Your task to perform on an android device: star an email in the gmail app Image 0: 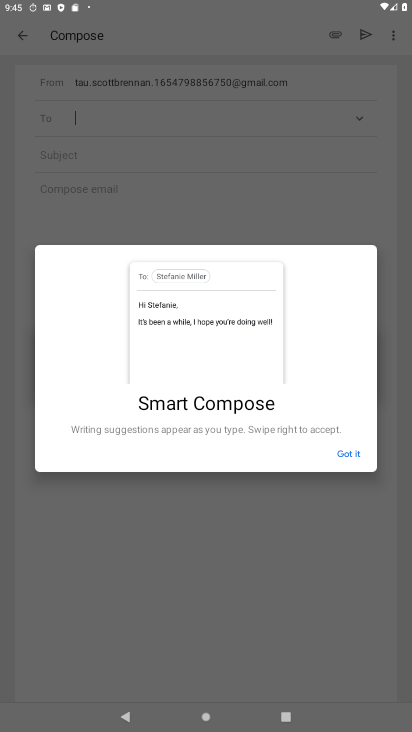
Step 0: click (348, 452)
Your task to perform on an android device: star an email in the gmail app Image 1: 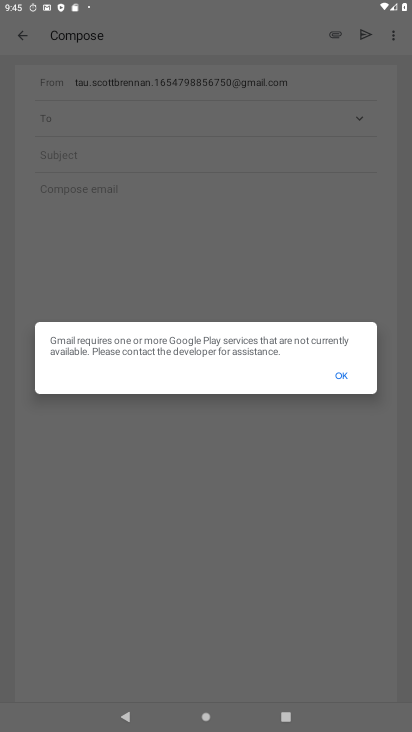
Step 1: click (343, 372)
Your task to perform on an android device: star an email in the gmail app Image 2: 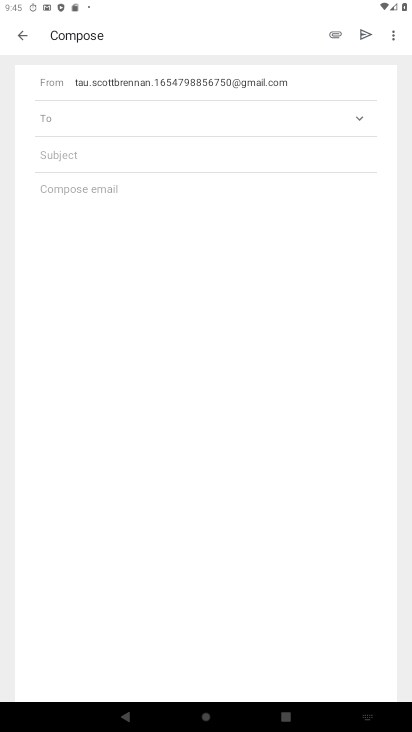
Step 2: click (17, 46)
Your task to perform on an android device: star an email in the gmail app Image 3: 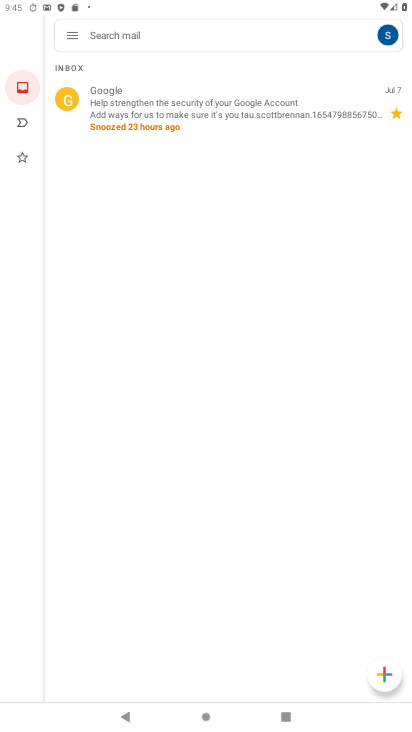
Step 3: task complete